Your task to perform on an android device: Open Google Chrome and open the bookmarks view Image 0: 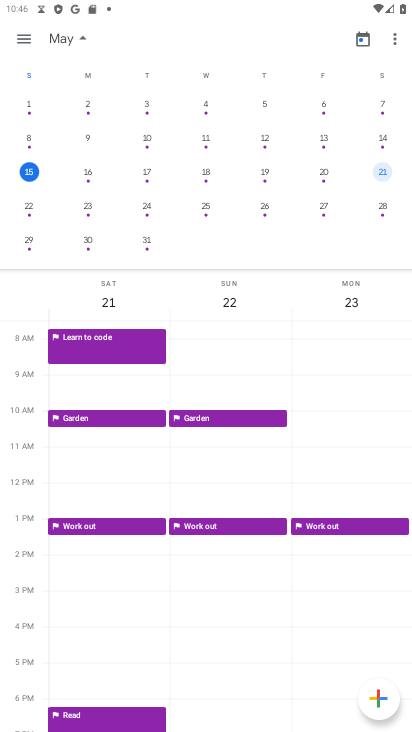
Step 0: press home button
Your task to perform on an android device: Open Google Chrome and open the bookmarks view Image 1: 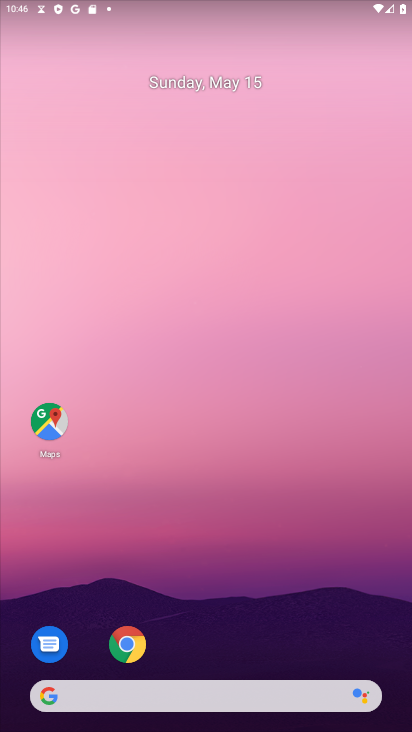
Step 1: drag from (217, 637) to (332, 24)
Your task to perform on an android device: Open Google Chrome and open the bookmarks view Image 2: 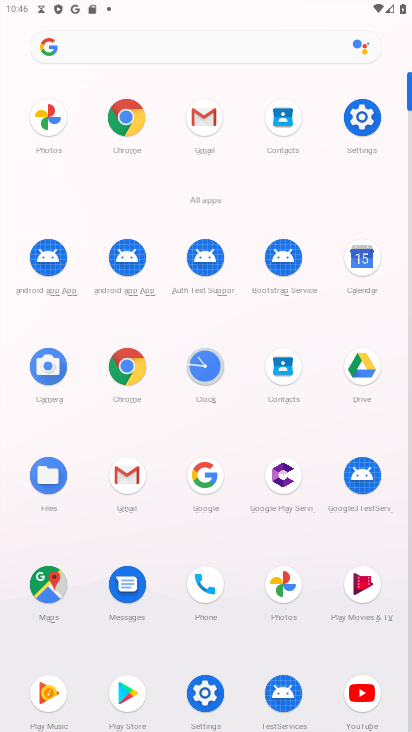
Step 2: click (131, 114)
Your task to perform on an android device: Open Google Chrome and open the bookmarks view Image 3: 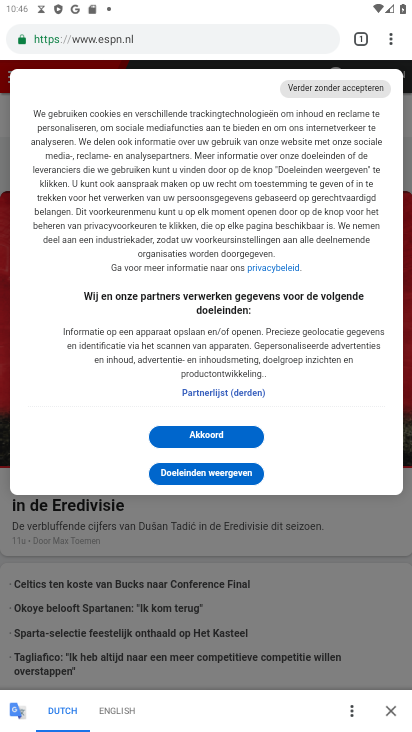
Step 3: click (396, 42)
Your task to perform on an android device: Open Google Chrome and open the bookmarks view Image 4: 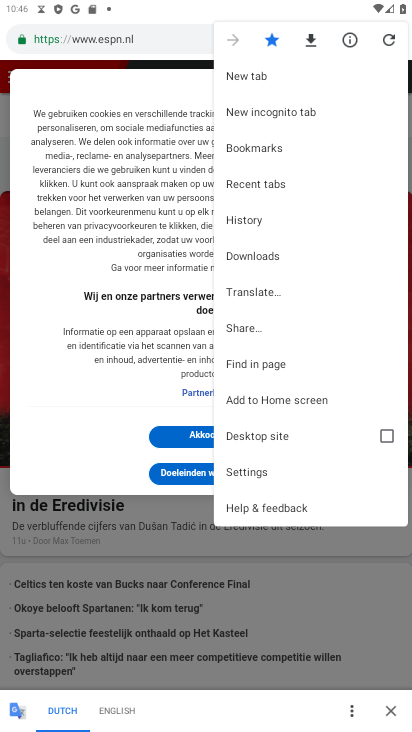
Step 4: click (262, 141)
Your task to perform on an android device: Open Google Chrome and open the bookmarks view Image 5: 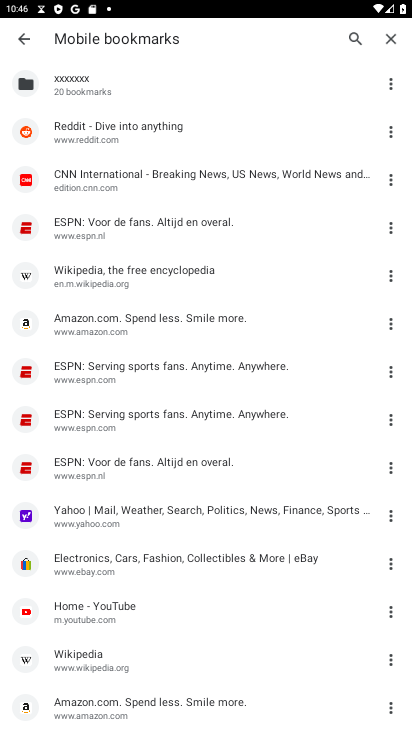
Step 5: task complete